Your task to perform on an android device: turn on the 24-hour format for clock Image 0: 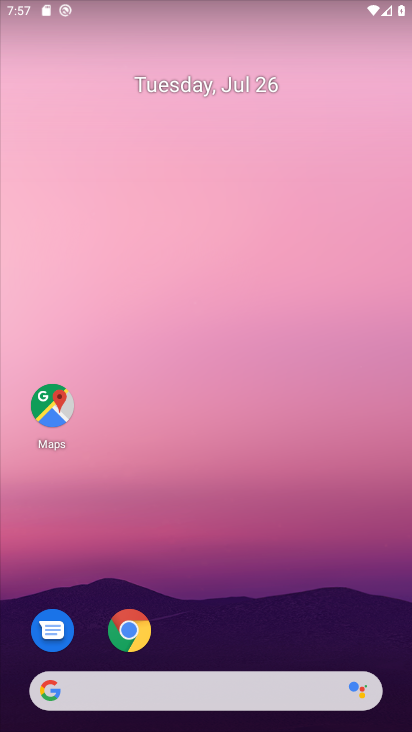
Step 0: drag from (385, 694) to (409, 60)
Your task to perform on an android device: turn on the 24-hour format for clock Image 1: 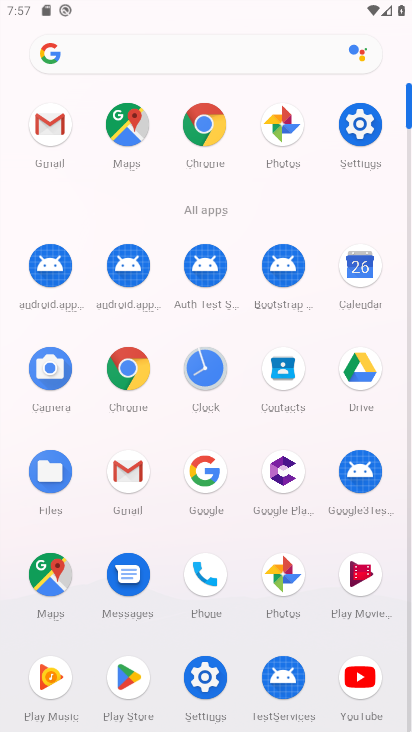
Step 1: click (204, 371)
Your task to perform on an android device: turn on the 24-hour format for clock Image 2: 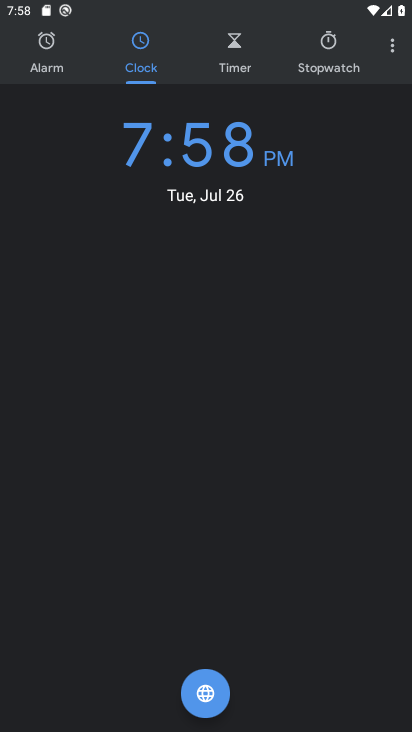
Step 2: click (393, 48)
Your task to perform on an android device: turn on the 24-hour format for clock Image 3: 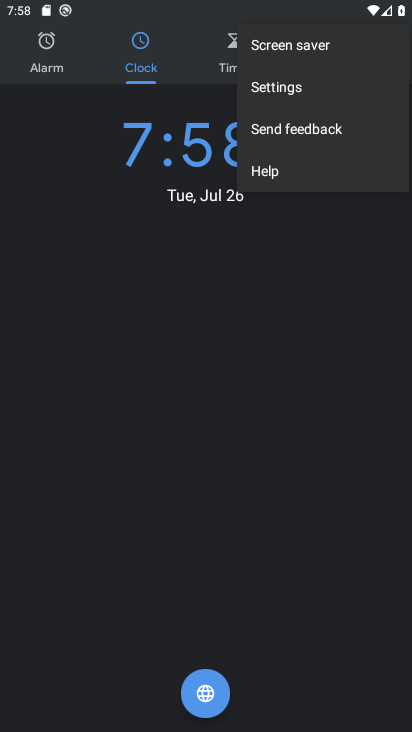
Step 3: click (279, 85)
Your task to perform on an android device: turn on the 24-hour format for clock Image 4: 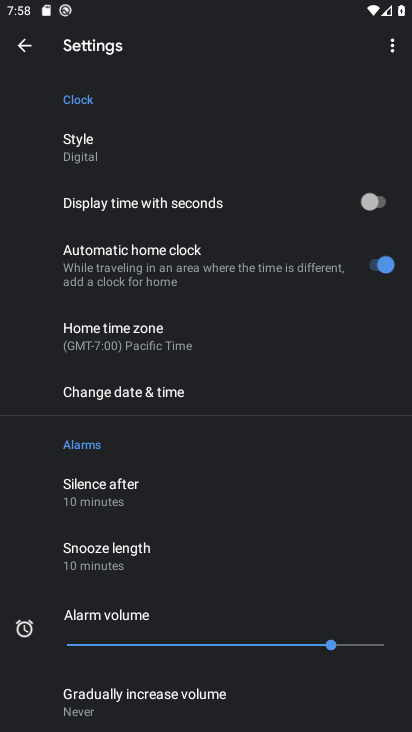
Step 4: click (136, 387)
Your task to perform on an android device: turn on the 24-hour format for clock Image 5: 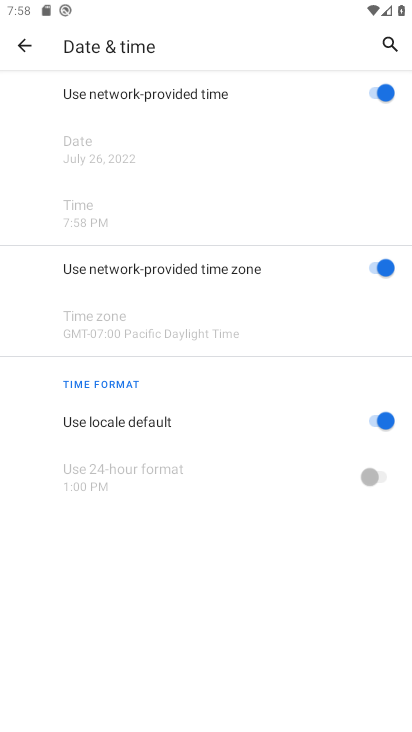
Step 5: click (372, 422)
Your task to perform on an android device: turn on the 24-hour format for clock Image 6: 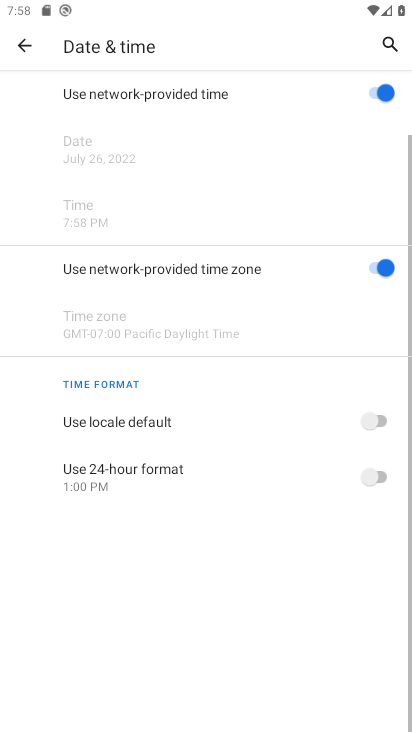
Step 6: click (377, 482)
Your task to perform on an android device: turn on the 24-hour format for clock Image 7: 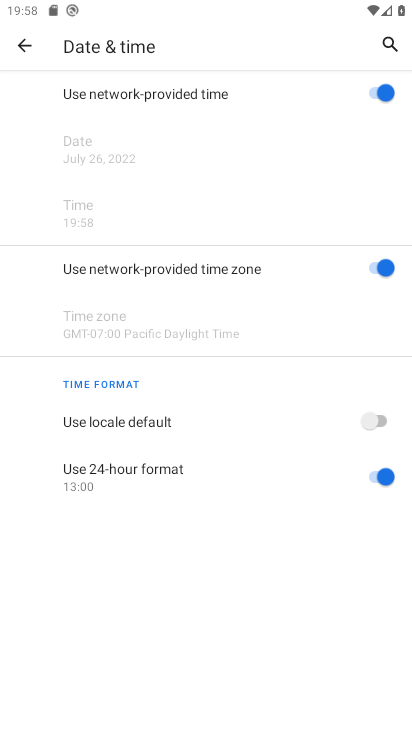
Step 7: task complete